Your task to perform on an android device: open the mobile data screen to see how much data has been used Image 0: 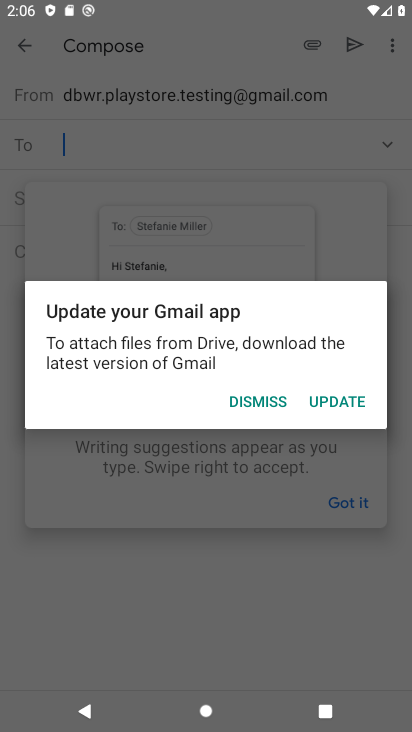
Step 0: press home button
Your task to perform on an android device: open the mobile data screen to see how much data has been used Image 1: 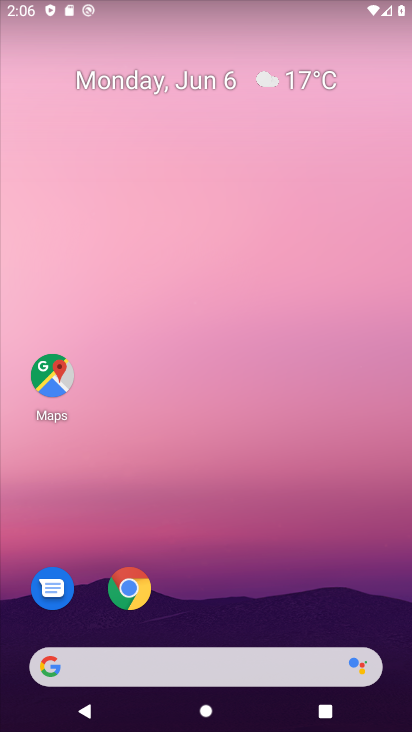
Step 1: drag from (189, 659) to (214, 188)
Your task to perform on an android device: open the mobile data screen to see how much data has been used Image 2: 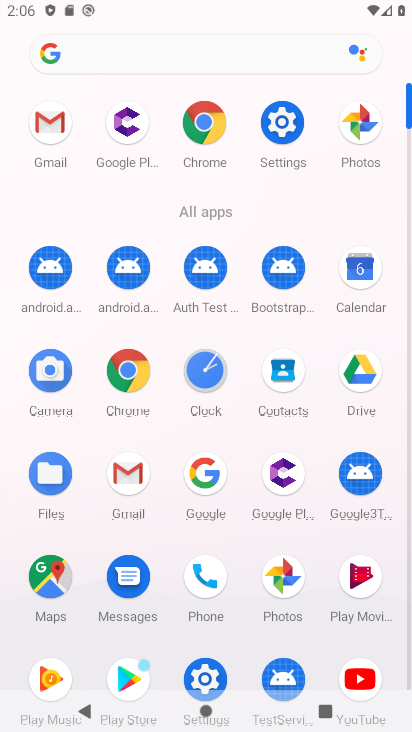
Step 2: click (269, 136)
Your task to perform on an android device: open the mobile data screen to see how much data has been used Image 3: 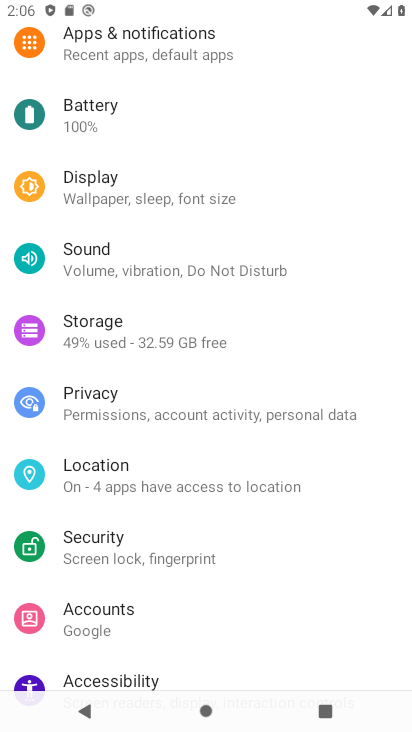
Step 3: drag from (157, 139) to (172, 625)
Your task to perform on an android device: open the mobile data screen to see how much data has been used Image 4: 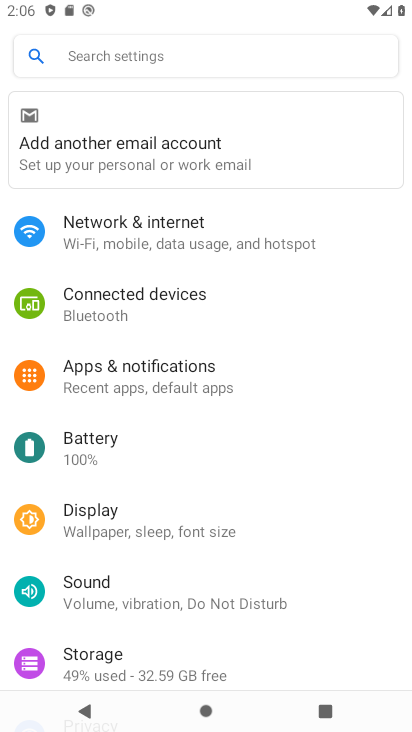
Step 4: click (107, 225)
Your task to perform on an android device: open the mobile data screen to see how much data has been used Image 5: 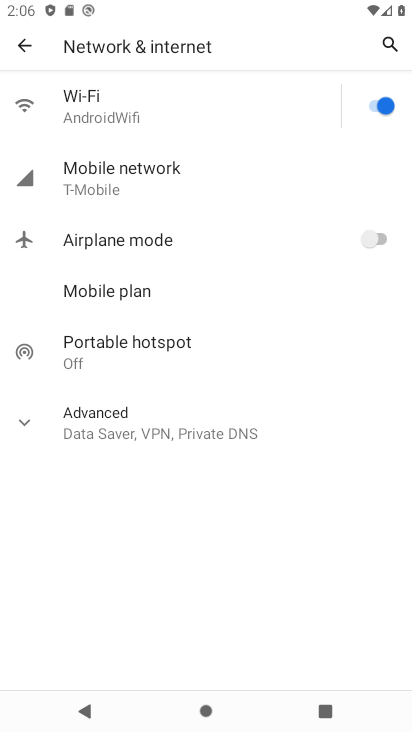
Step 5: click (128, 183)
Your task to perform on an android device: open the mobile data screen to see how much data has been used Image 6: 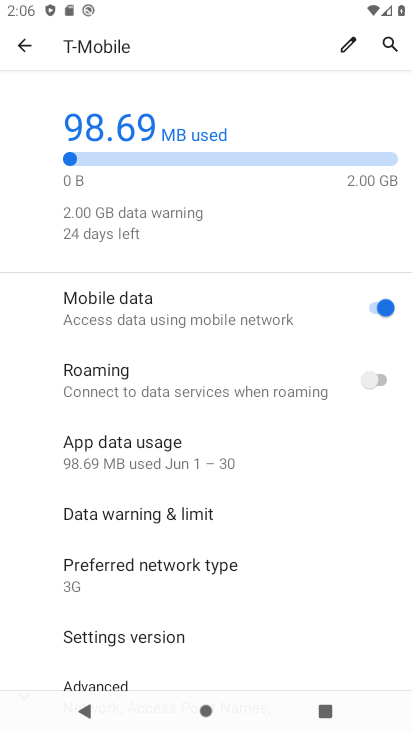
Step 6: task complete